Your task to perform on an android device: Is it going to rain tomorrow? Image 0: 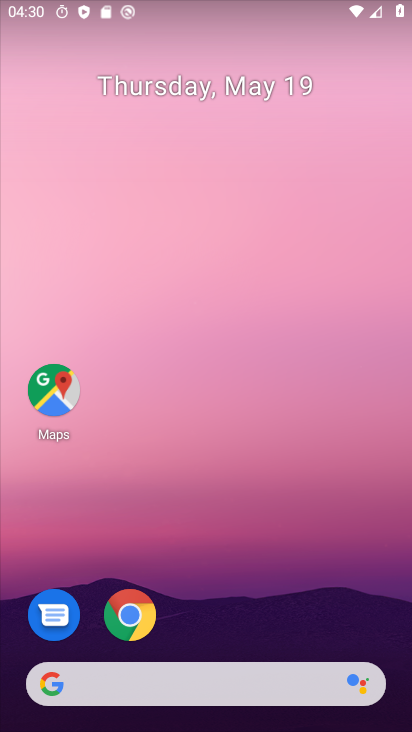
Step 0: click (154, 692)
Your task to perform on an android device: Is it going to rain tomorrow? Image 1: 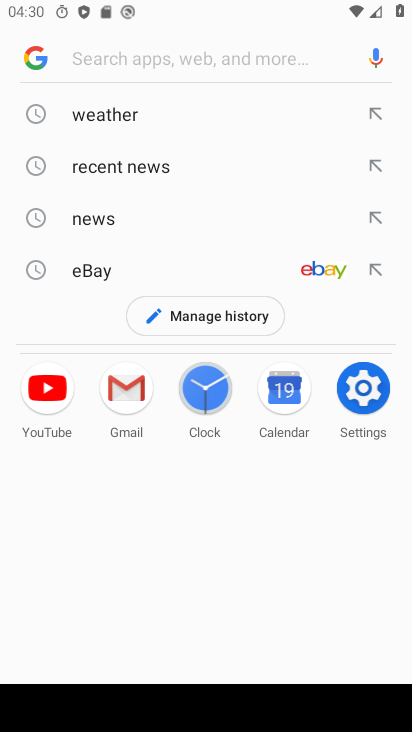
Step 1: click (116, 119)
Your task to perform on an android device: Is it going to rain tomorrow? Image 2: 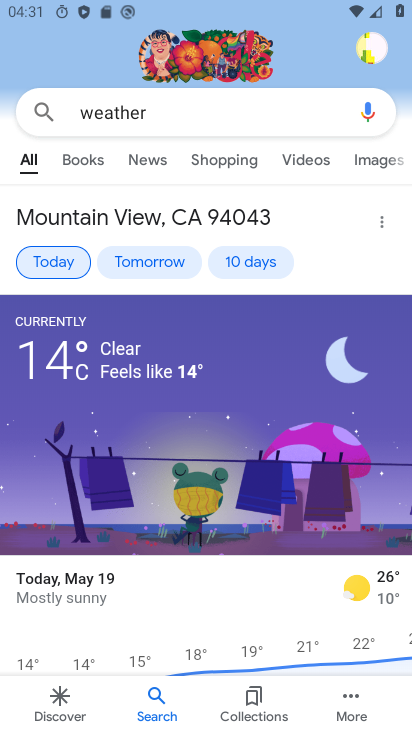
Step 2: click (151, 259)
Your task to perform on an android device: Is it going to rain tomorrow? Image 3: 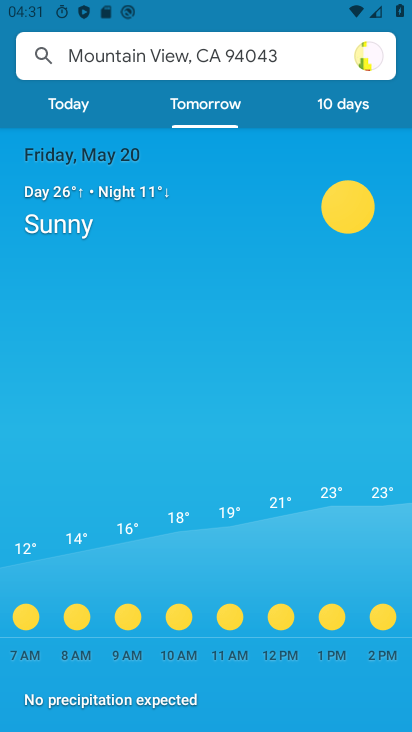
Step 3: task complete